Your task to perform on an android device: When is my next appointment? Image 0: 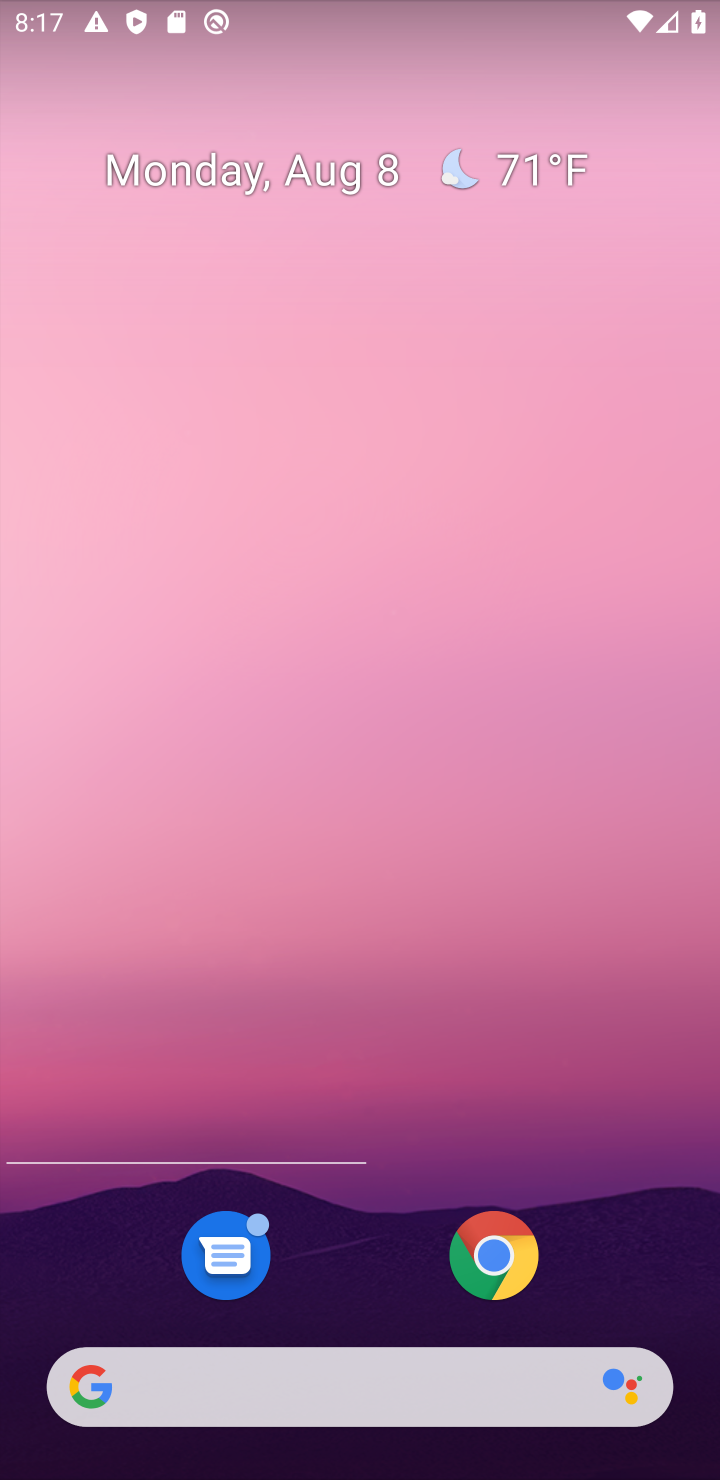
Step 0: press home button
Your task to perform on an android device: When is my next appointment? Image 1: 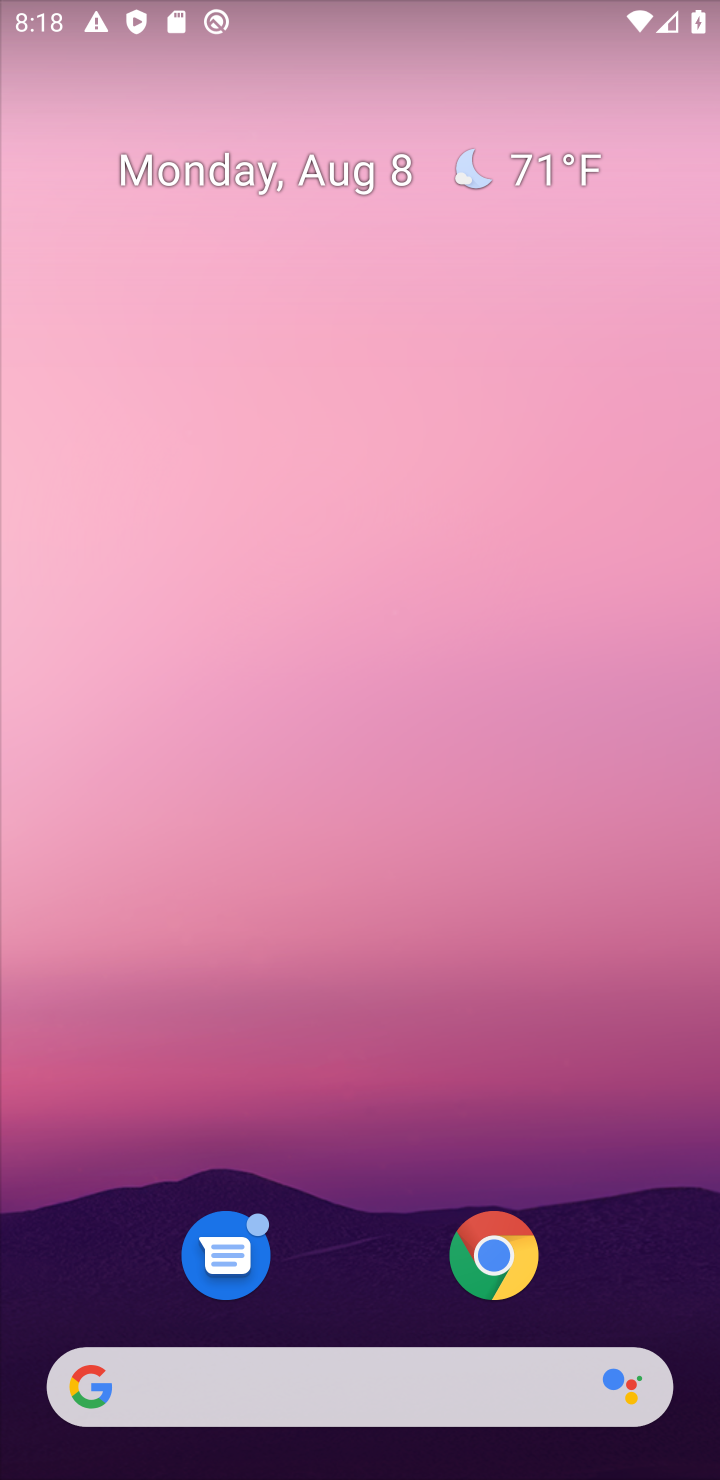
Step 1: drag from (356, 1294) to (391, 175)
Your task to perform on an android device: When is my next appointment? Image 2: 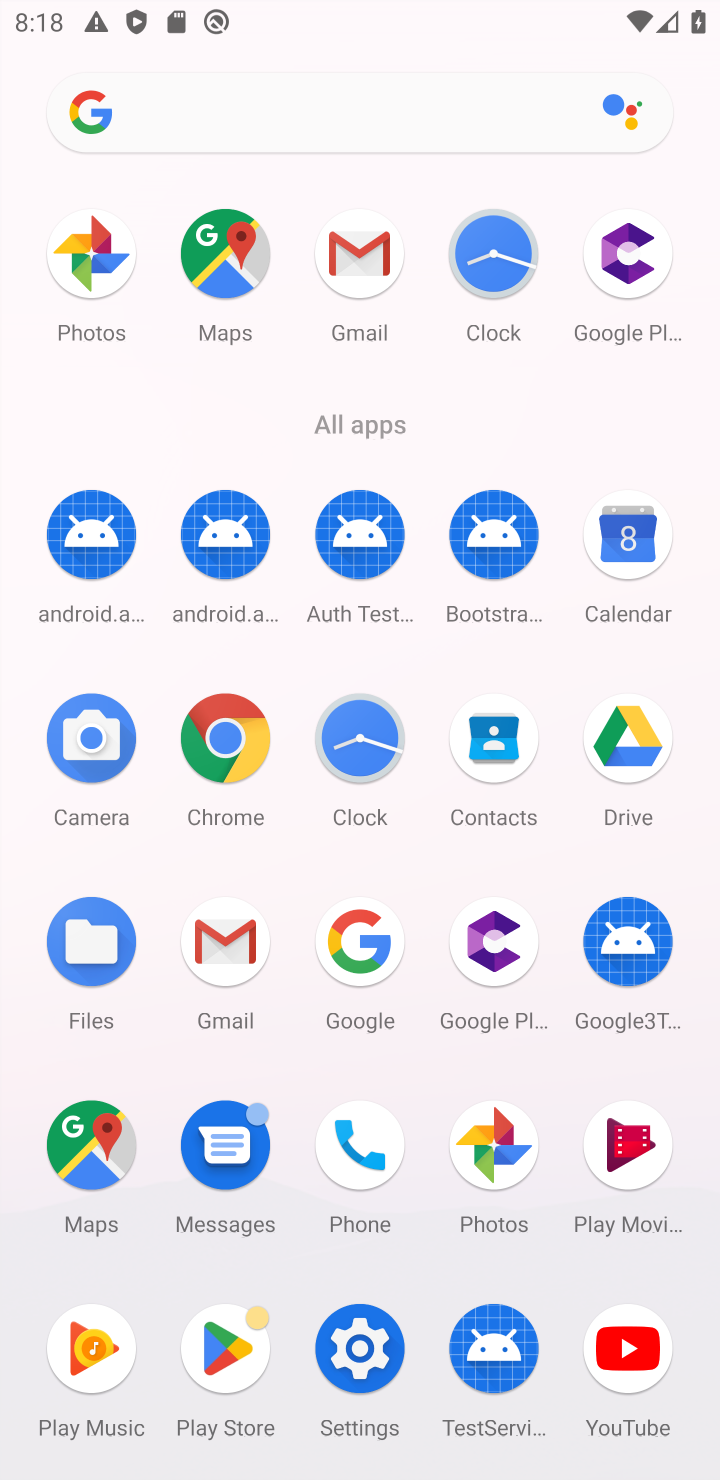
Step 2: click (629, 532)
Your task to perform on an android device: When is my next appointment? Image 3: 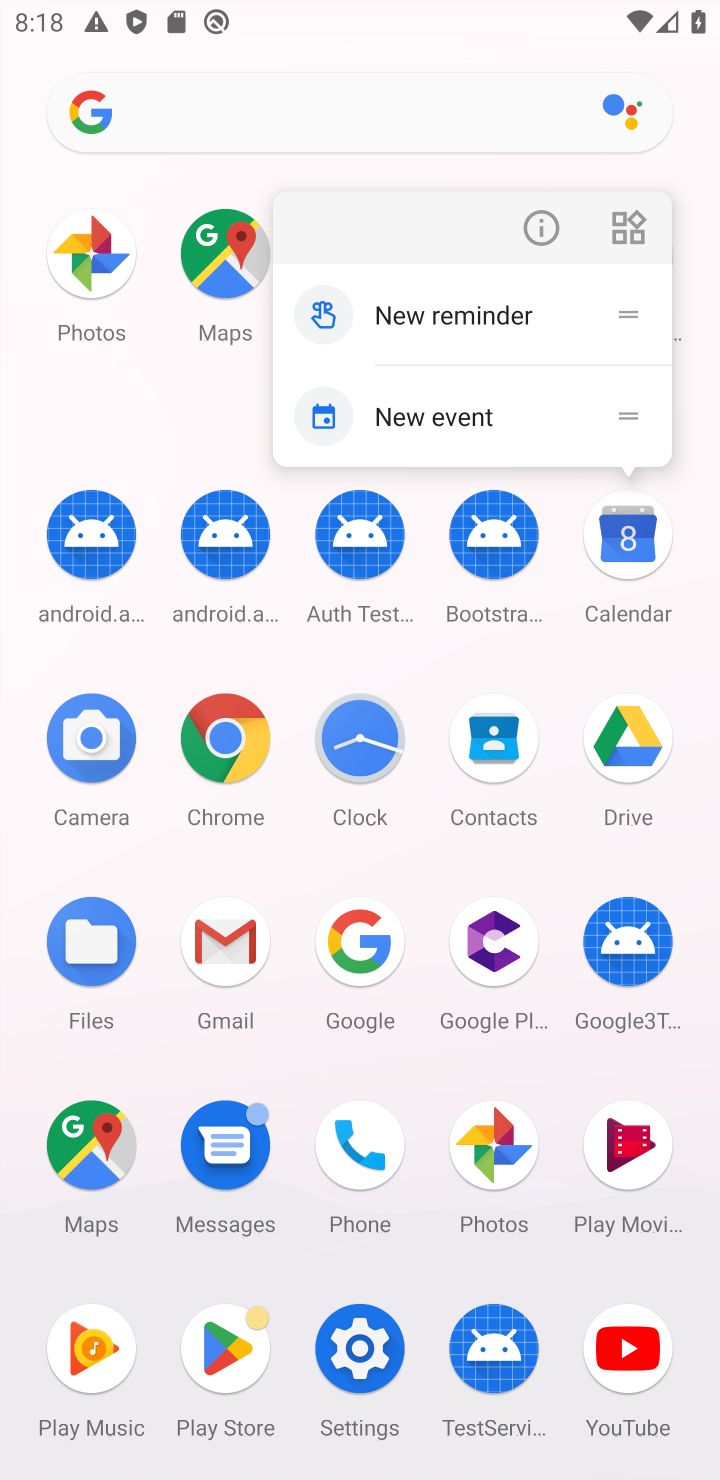
Step 3: click (619, 538)
Your task to perform on an android device: When is my next appointment? Image 4: 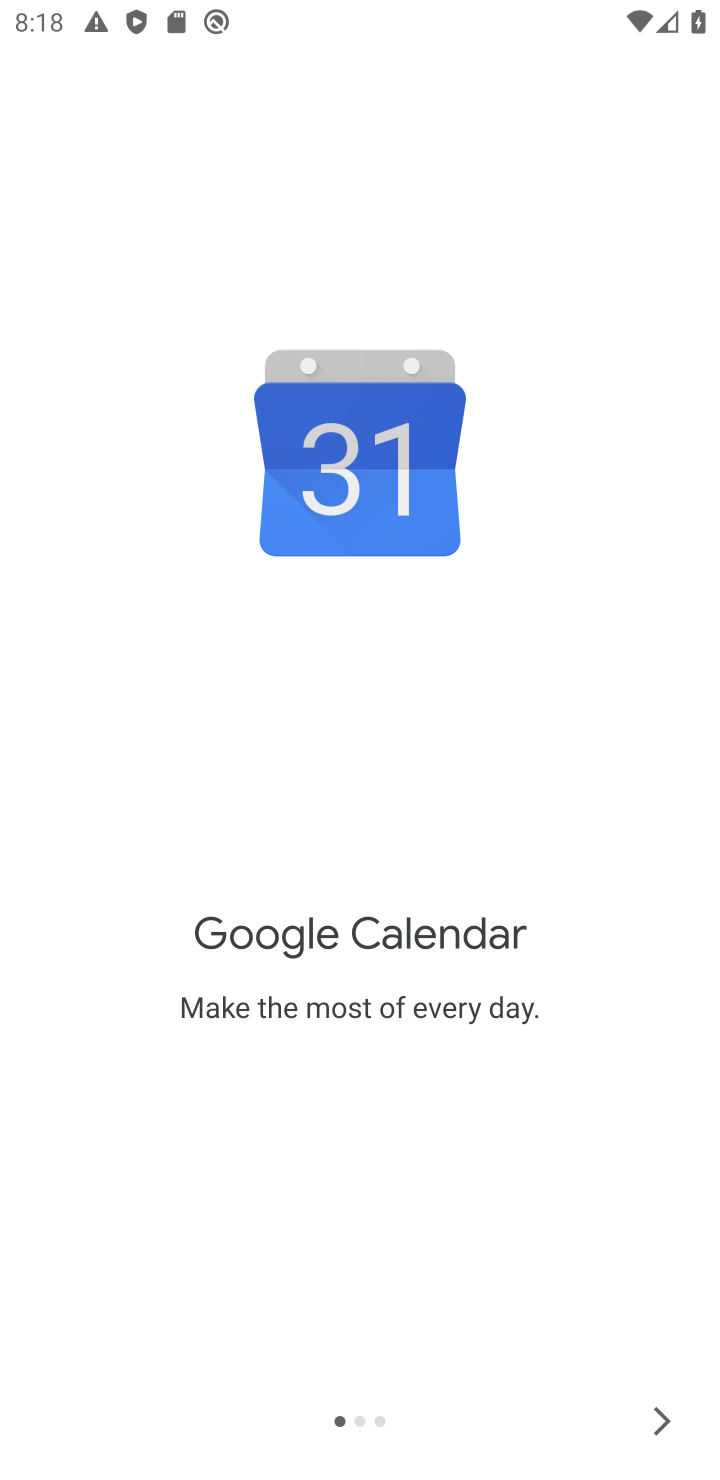
Step 4: click (652, 1406)
Your task to perform on an android device: When is my next appointment? Image 5: 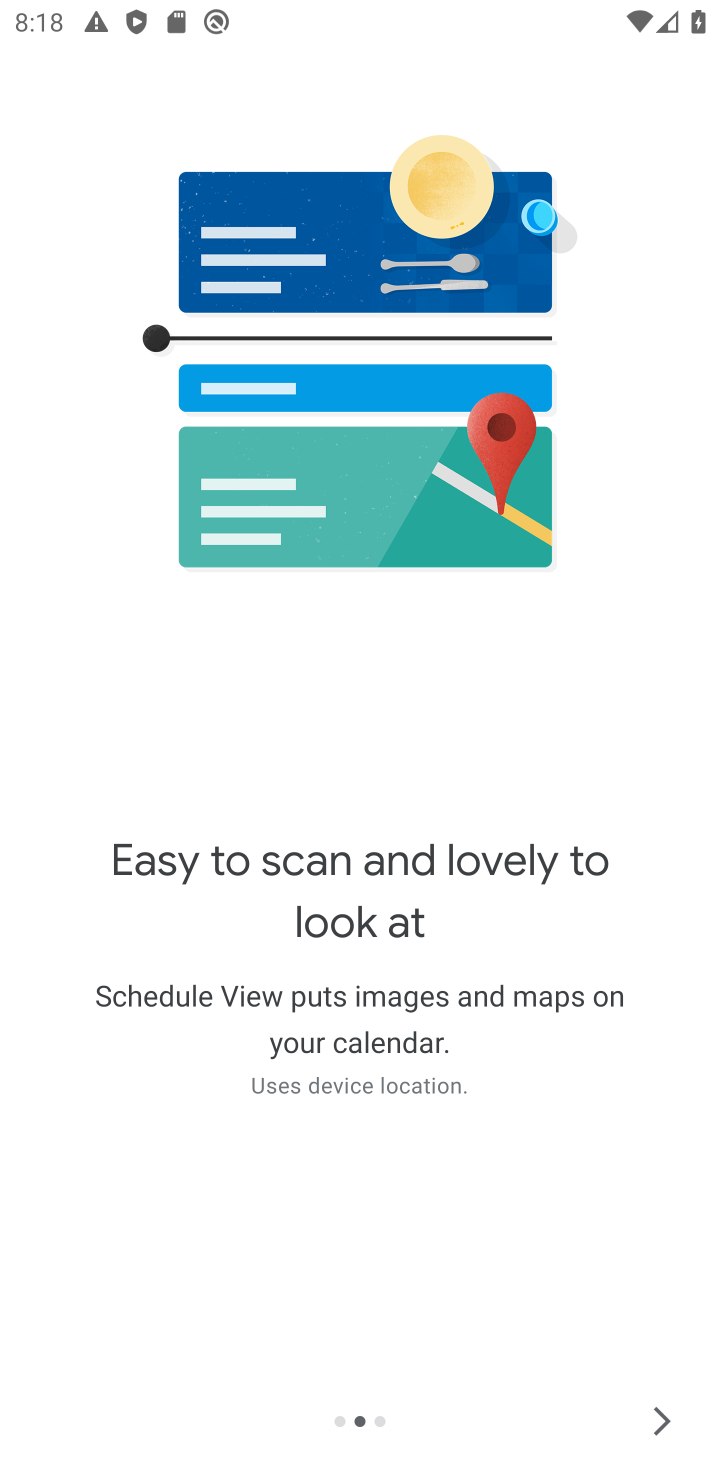
Step 5: click (649, 1403)
Your task to perform on an android device: When is my next appointment? Image 6: 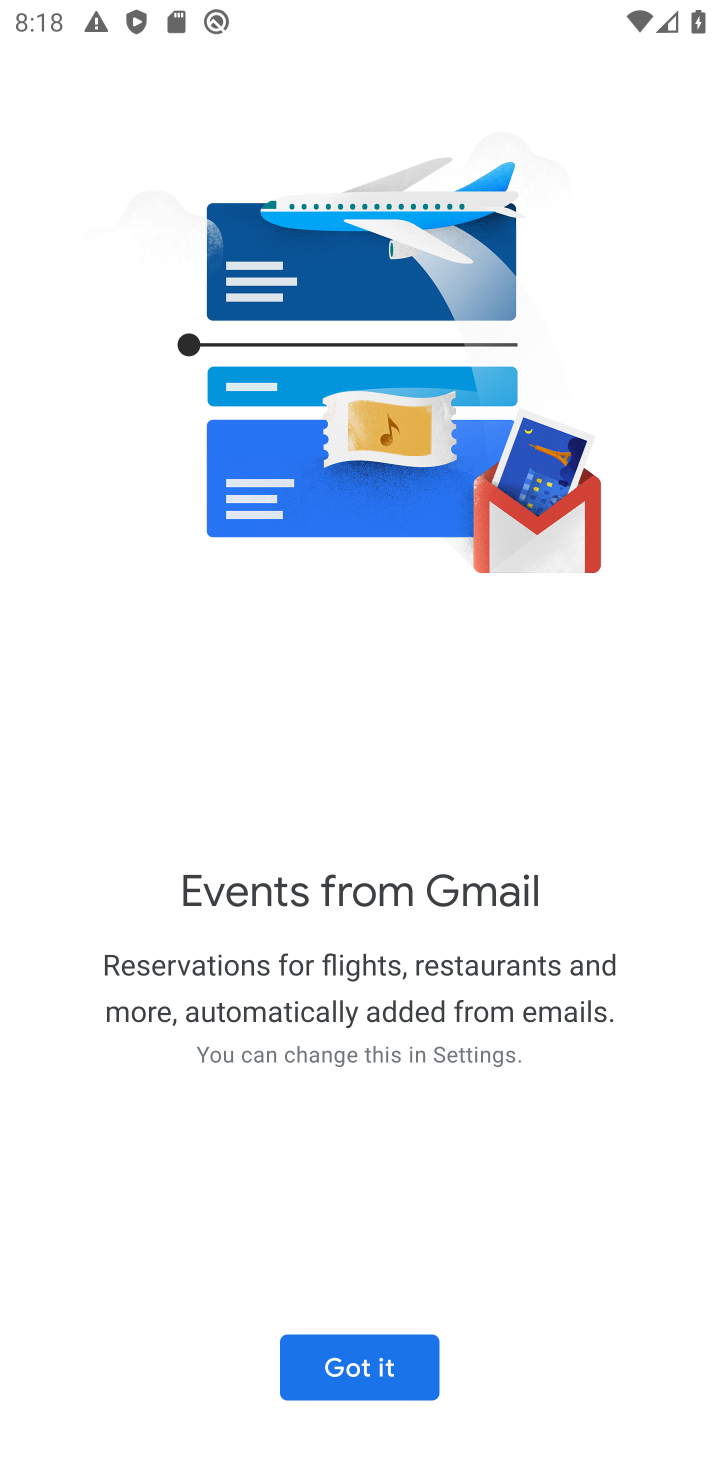
Step 6: click (368, 1360)
Your task to perform on an android device: When is my next appointment? Image 7: 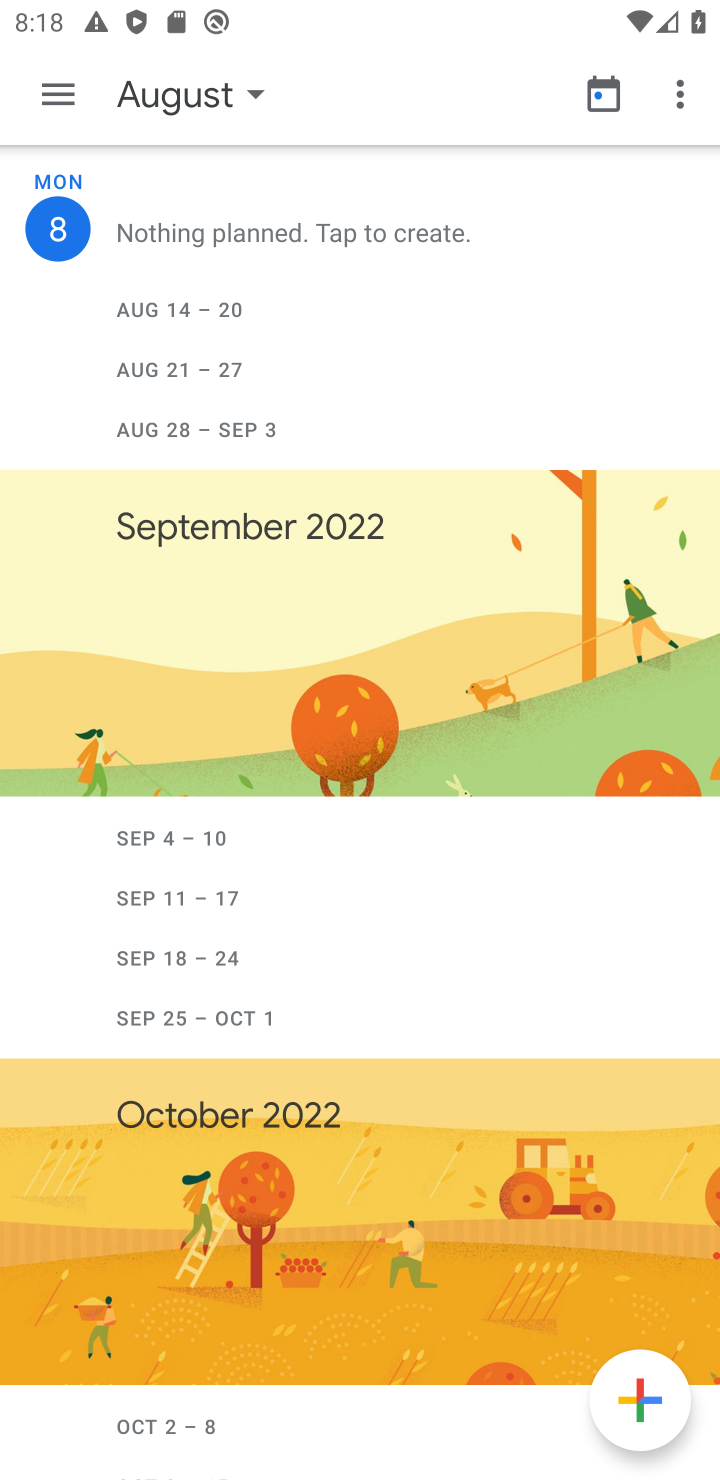
Step 7: task complete